Your task to perform on an android device: Go to ESPN.com Image 0: 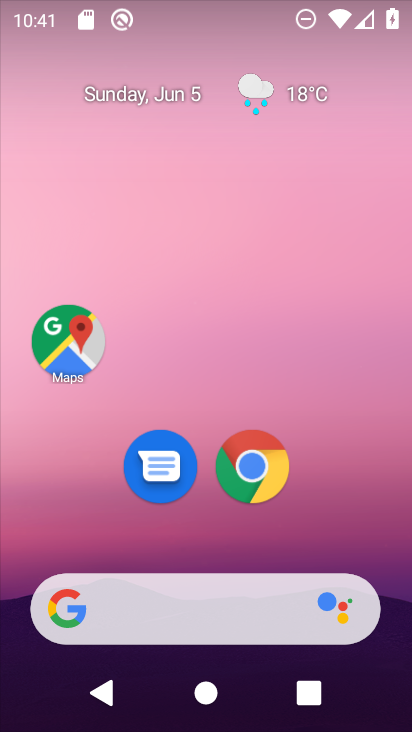
Step 0: drag from (370, 579) to (238, 15)
Your task to perform on an android device: Go to ESPN.com Image 1: 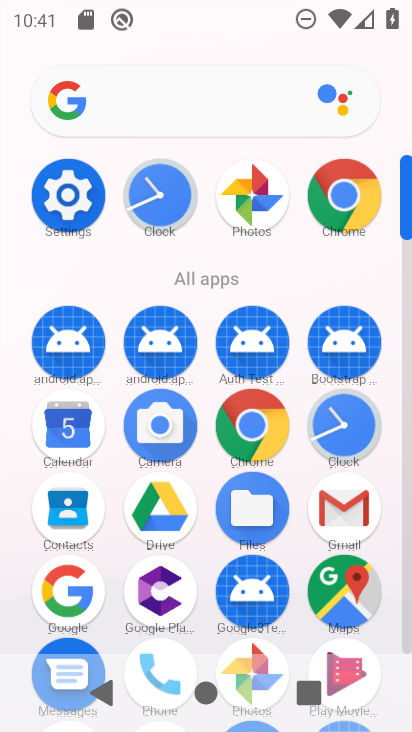
Step 1: click (349, 189)
Your task to perform on an android device: Go to ESPN.com Image 2: 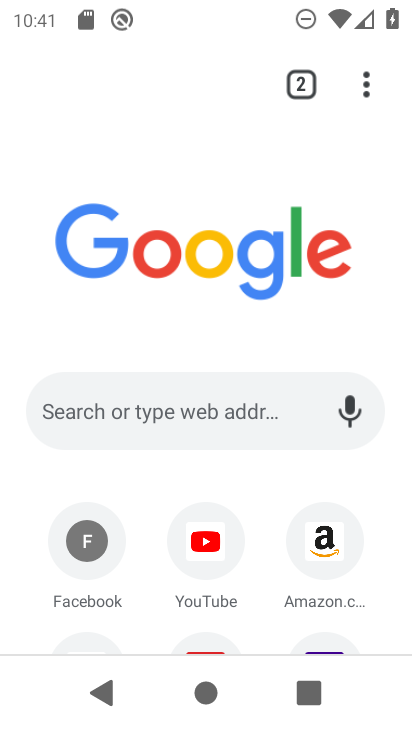
Step 2: click (215, 400)
Your task to perform on an android device: Go to ESPN.com Image 3: 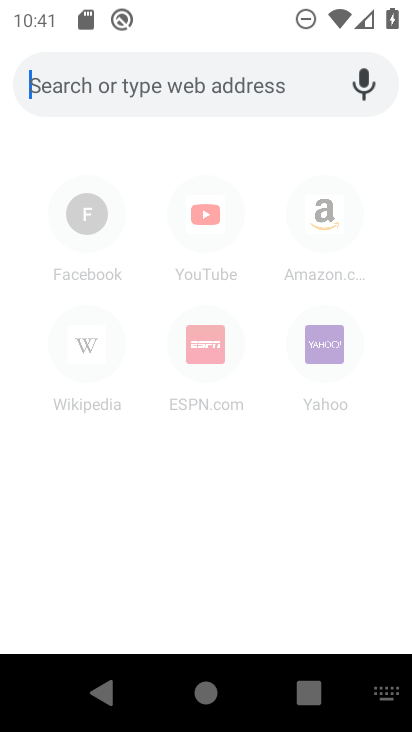
Step 3: click (233, 554)
Your task to perform on an android device: Go to ESPN.com Image 4: 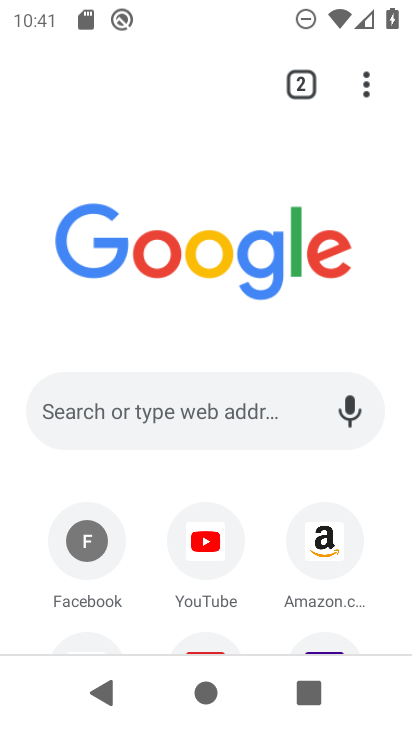
Step 4: drag from (152, 626) to (157, 410)
Your task to perform on an android device: Go to ESPN.com Image 5: 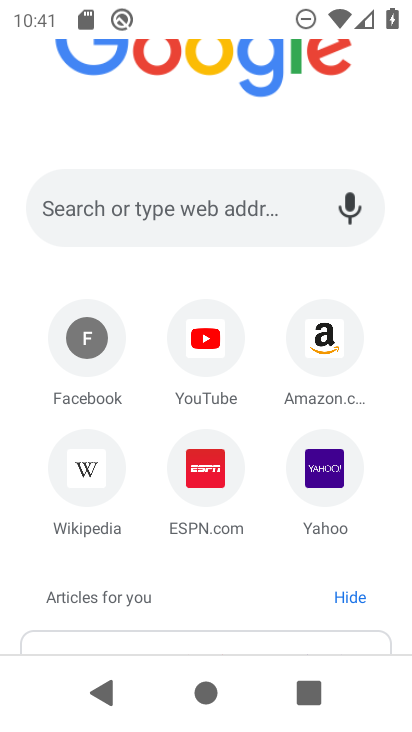
Step 5: click (222, 471)
Your task to perform on an android device: Go to ESPN.com Image 6: 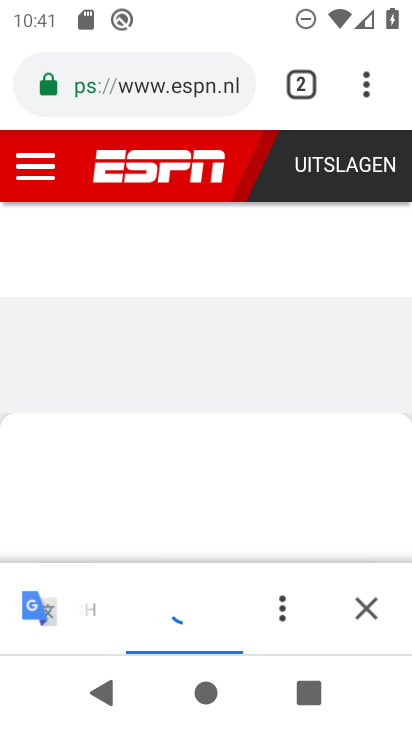
Step 6: task complete